Your task to perform on an android device: toggle data saver in the chrome app Image 0: 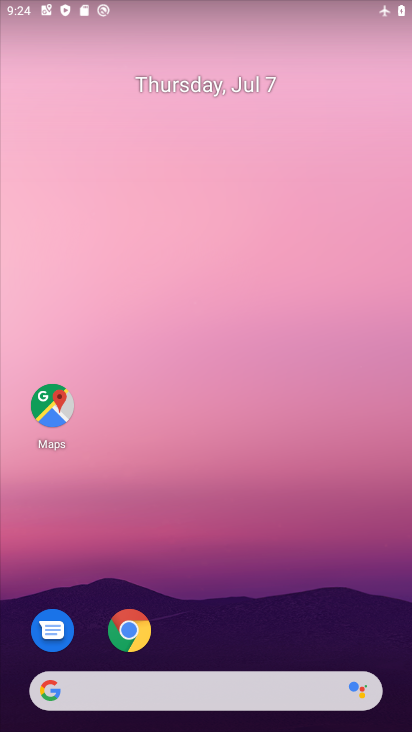
Step 0: click (141, 645)
Your task to perform on an android device: toggle data saver in the chrome app Image 1: 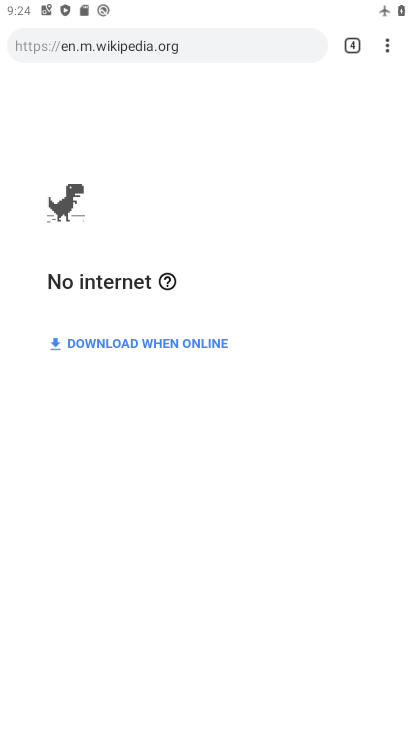
Step 1: click (383, 41)
Your task to perform on an android device: toggle data saver in the chrome app Image 2: 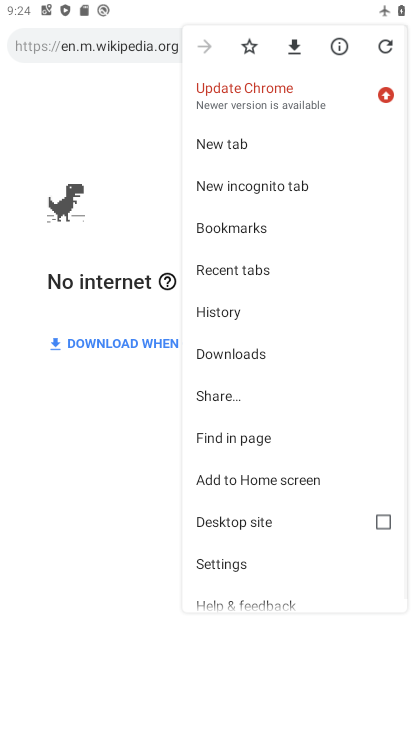
Step 2: click (256, 567)
Your task to perform on an android device: toggle data saver in the chrome app Image 3: 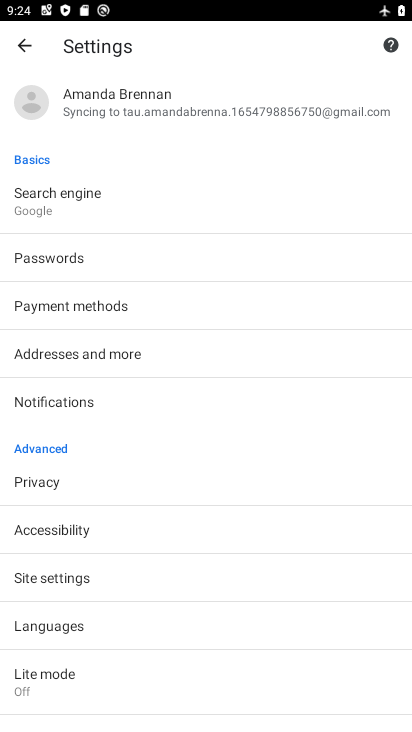
Step 3: click (88, 665)
Your task to perform on an android device: toggle data saver in the chrome app Image 4: 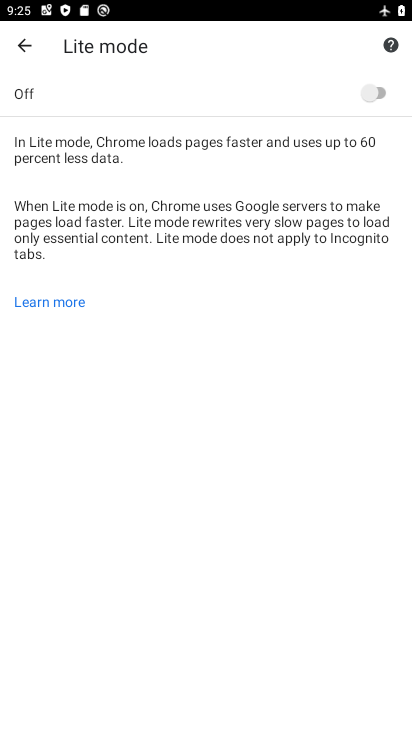
Step 4: click (379, 96)
Your task to perform on an android device: toggle data saver in the chrome app Image 5: 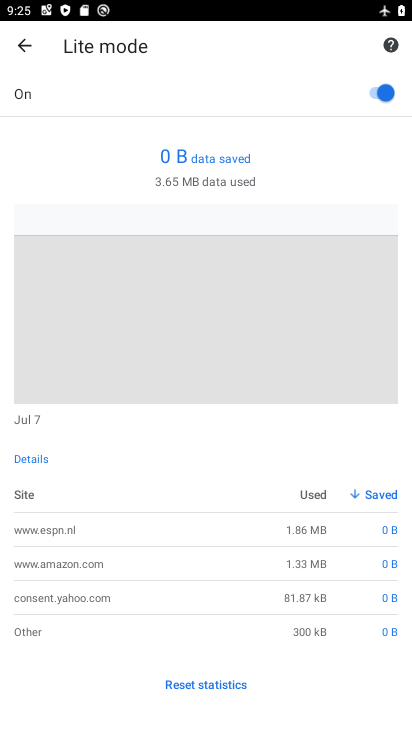
Step 5: task complete